Your task to perform on an android device: Go to Amazon Image 0: 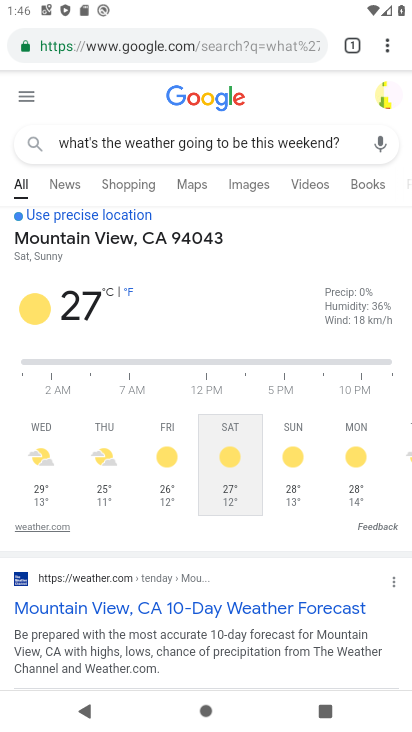
Step 0: press home button
Your task to perform on an android device: Go to Amazon Image 1: 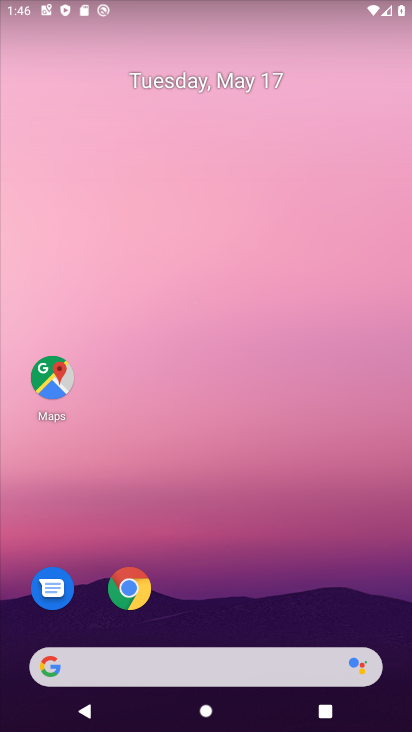
Step 1: click (144, 580)
Your task to perform on an android device: Go to Amazon Image 2: 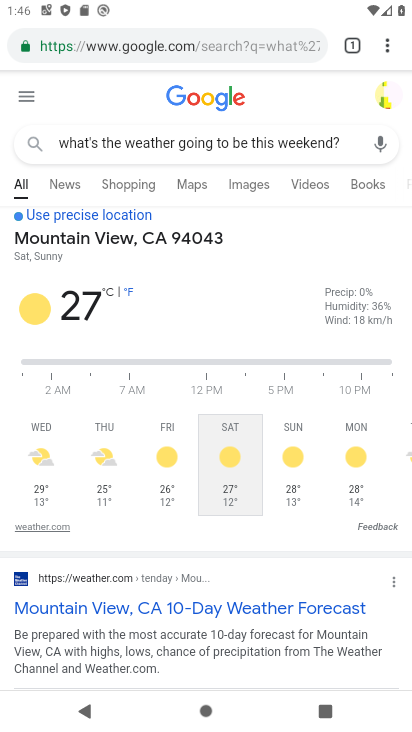
Step 2: click (353, 46)
Your task to perform on an android device: Go to Amazon Image 3: 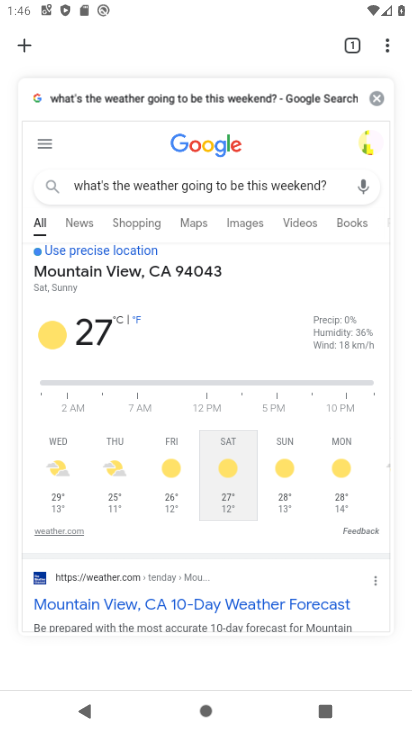
Step 3: click (32, 44)
Your task to perform on an android device: Go to Amazon Image 4: 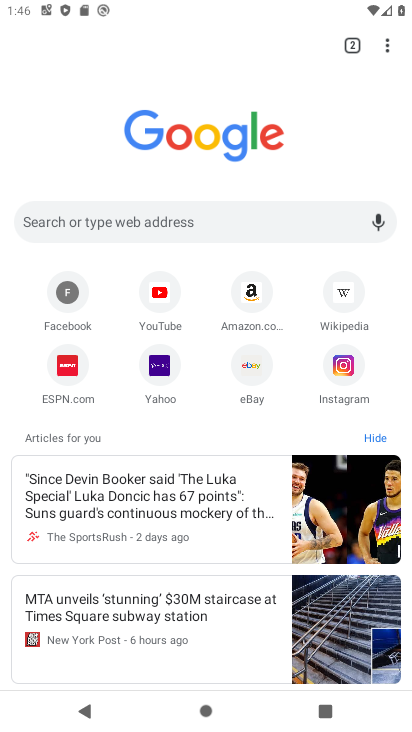
Step 4: click (245, 299)
Your task to perform on an android device: Go to Amazon Image 5: 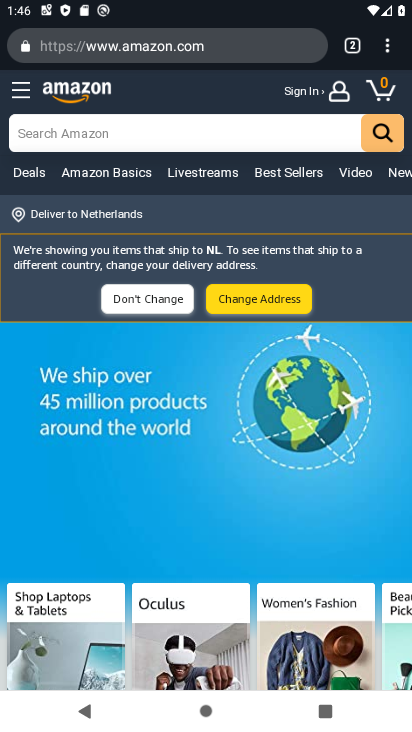
Step 5: task complete